Your task to perform on an android device: turn off notifications in google photos Image 0: 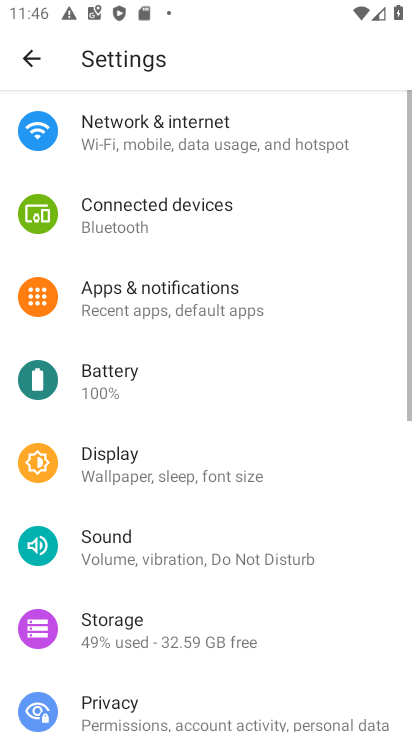
Step 0: press home button
Your task to perform on an android device: turn off notifications in google photos Image 1: 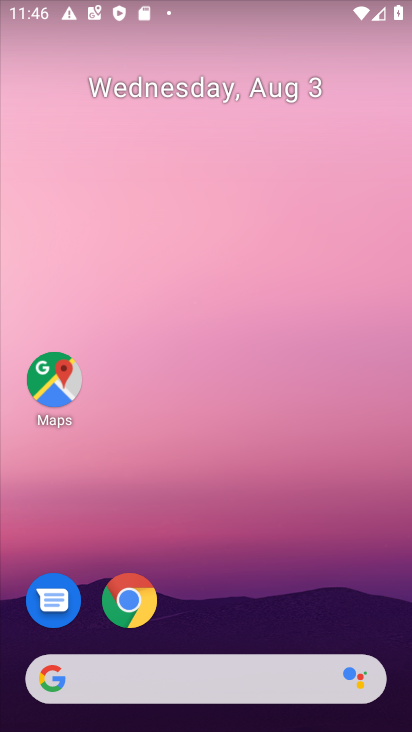
Step 1: drag from (183, 682) to (310, 164)
Your task to perform on an android device: turn off notifications in google photos Image 2: 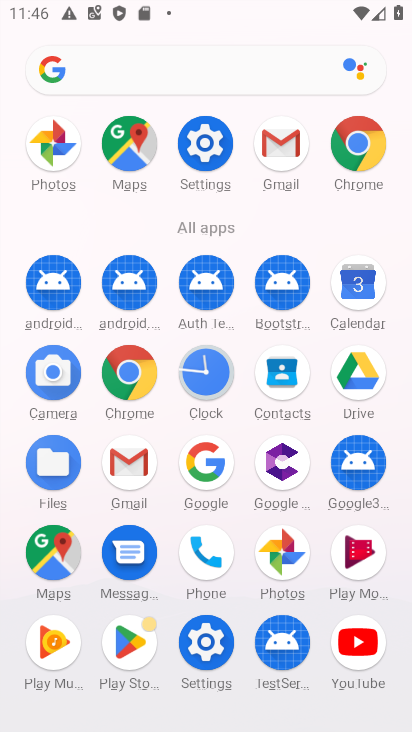
Step 2: click (282, 557)
Your task to perform on an android device: turn off notifications in google photos Image 3: 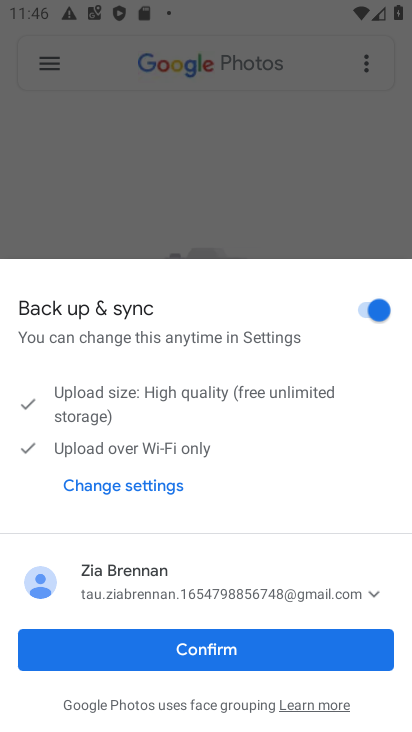
Step 3: click (215, 658)
Your task to perform on an android device: turn off notifications in google photos Image 4: 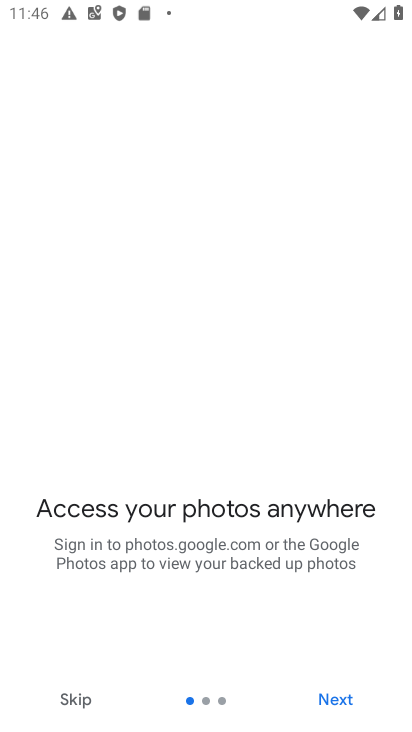
Step 4: click (322, 690)
Your task to perform on an android device: turn off notifications in google photos Image 5: 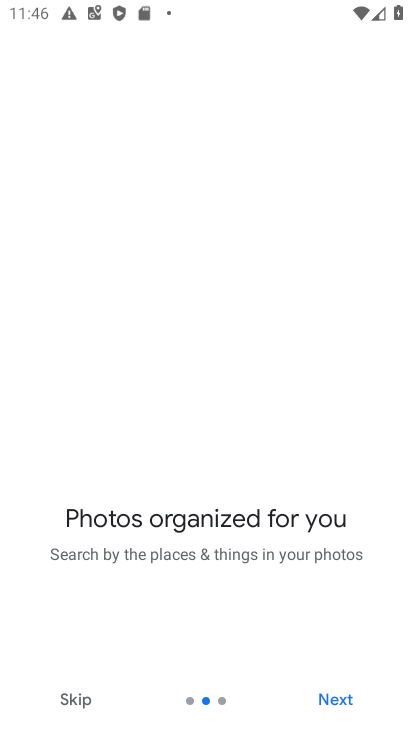
Step 5: click (333, 696)
Your task to perform on an android device: turn off notifications in google photos Image 6: 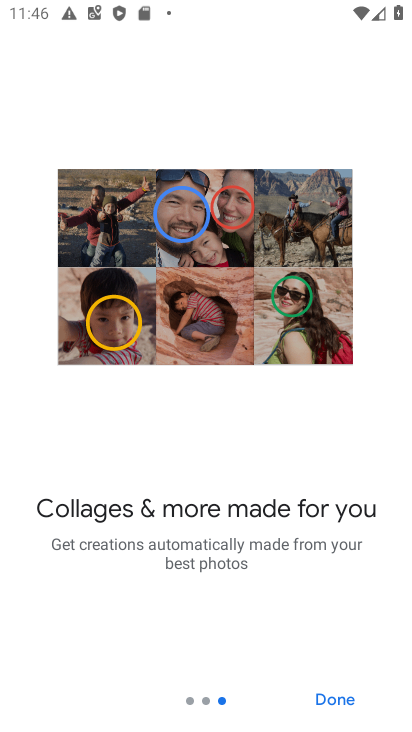
Step 6: click (331, 700)
Your task to perform on an android device: turn off notifications in google photos Image 7: 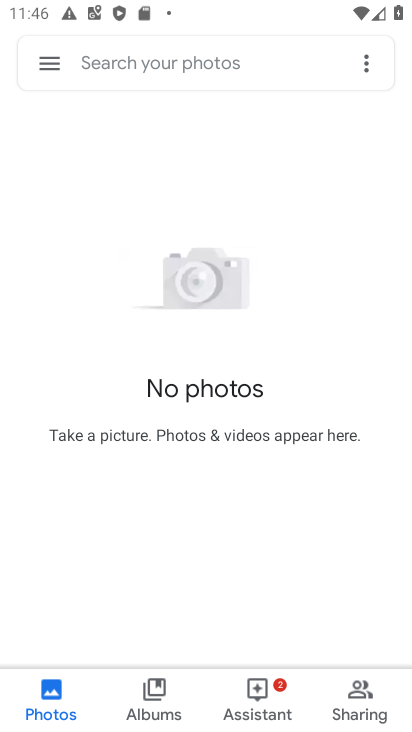
Step 7: click (54, 66)
Your task to perform on an android device: turn off notifications in google photos Image 8: 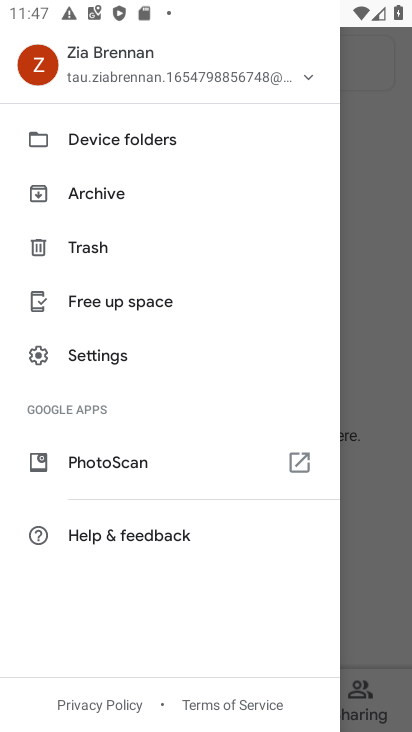
Step 8: click (99, 355)
Your task to perform on an android device: turn off notifications in google photos Image 9: 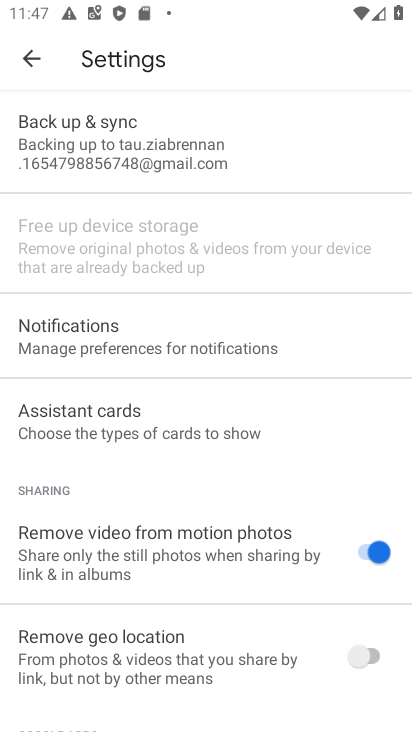
Step 9: click (170, 343)
Your task to perform on an android device: turn off notifications in google photos Image 10: 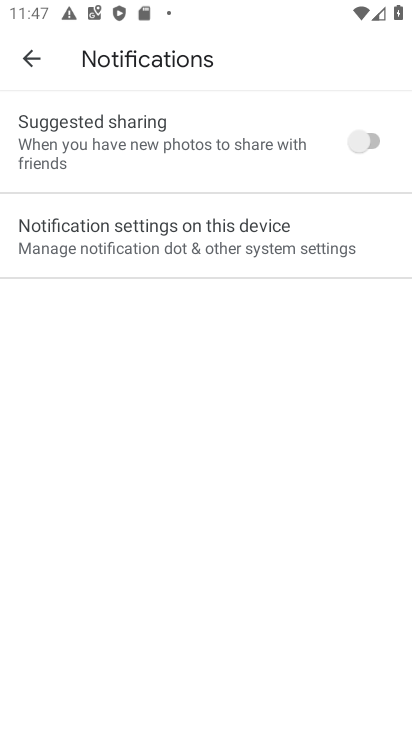
Step 10: click (194, 237)
Your task to perform on an android device: turn off notifications in google photos Image 11: 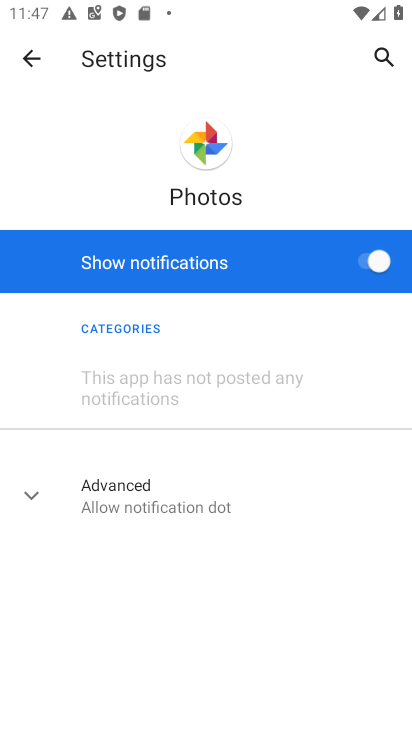
Step 11: click (366, 258)
Your task to perform on an android device: turn off notifications in google photos Image 12: 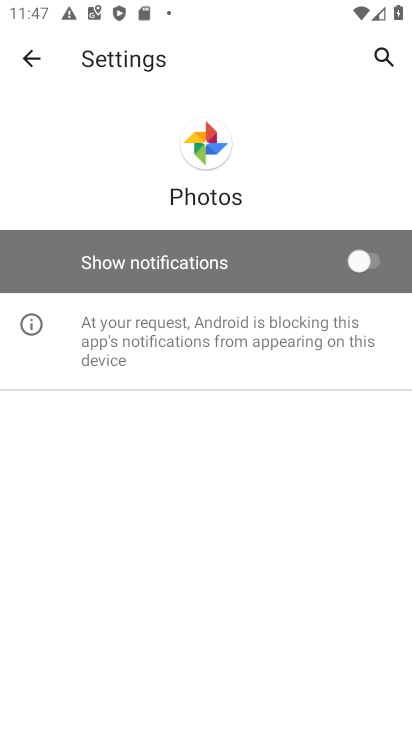
Step 12: task complete